Your task to perform on an android device: open device folders in google photos Image 0: 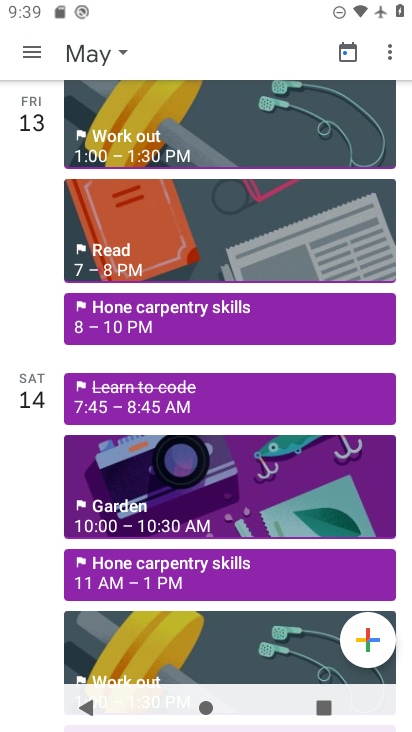
Step 0: press home button
Your task to perform on an android device: open device folders in google photos Image 1: 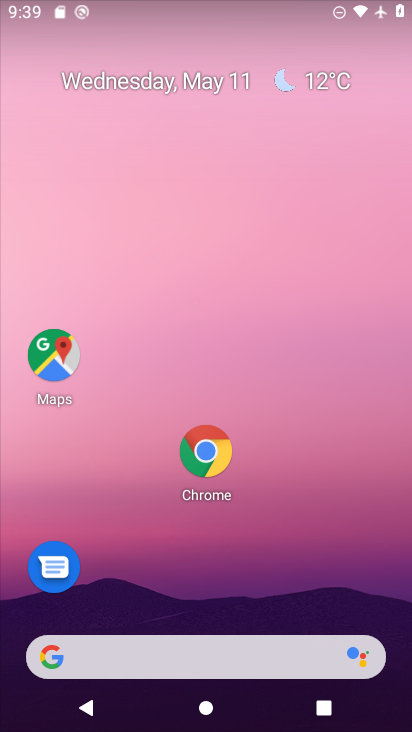
Step 1: drag from (167, 670) to (302, 209)
Your task to perform on an android device: open device folders in google photos Image 2: 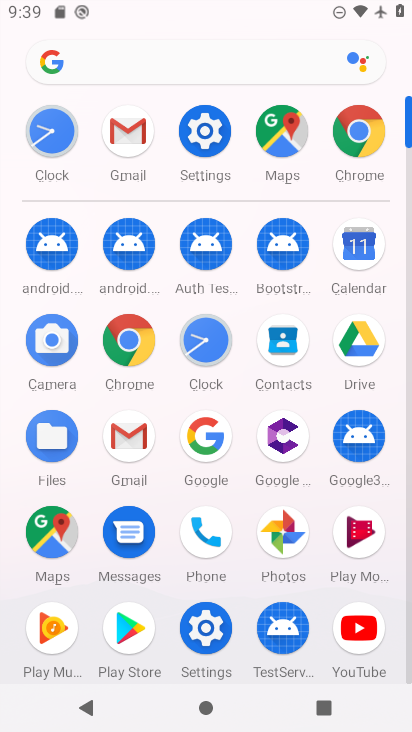
Step 2: click (290, 536)
Your task to perform on an android device: open device folders in google photos Image 3: 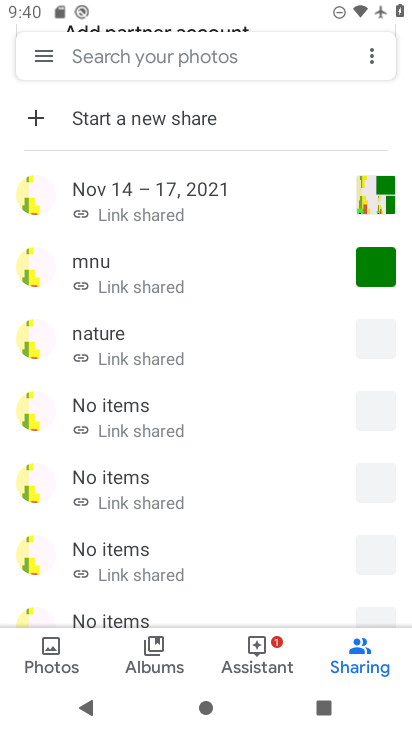
Step 3: click (60, 662)
Your task to perform on an android device: open device folders in google photos Image 4: 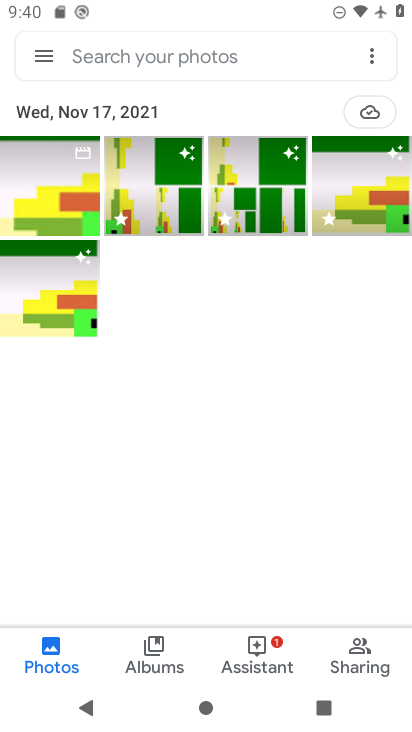
Step 4: click (35, 45)
Your task to perform on an android device: open device folders in google photos Image 5: 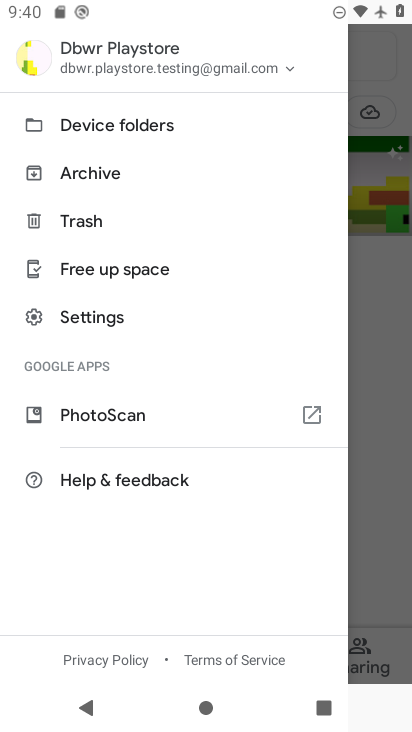
Step 5: click (70, 131)
Your task to perform on an android device: open device folders in google photos Image 6: 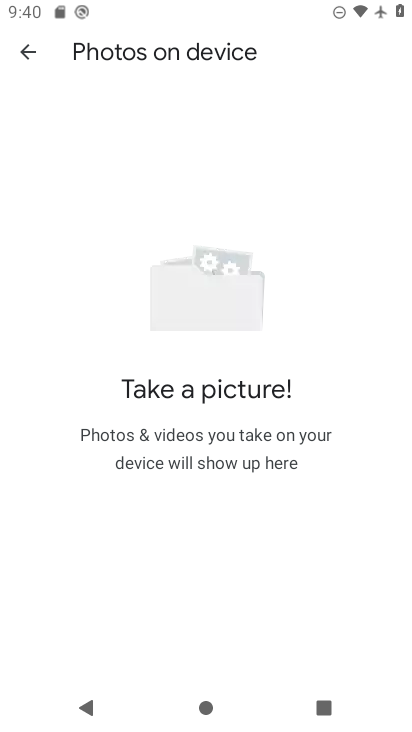
Step 6: task complete